Your task to perform on an android device: turn off location Image 0: 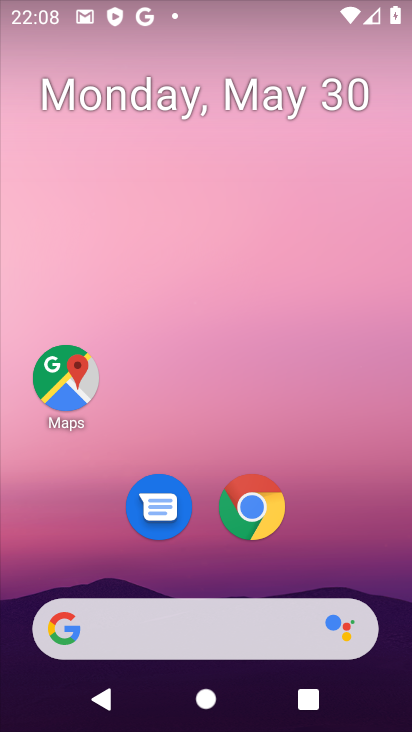
Step 0: drag from (370, 554) to (381, 114)
Your task to perform on an android device: turn off location Image 1: 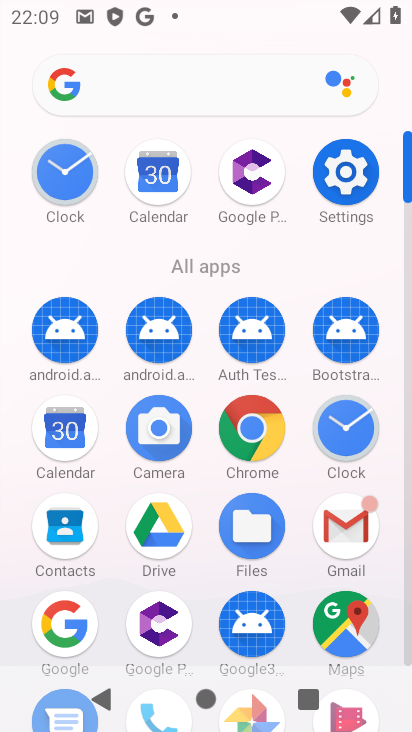
Step 1: click (356, 175)
Your task to perform on an android device: turn off location Image 2: 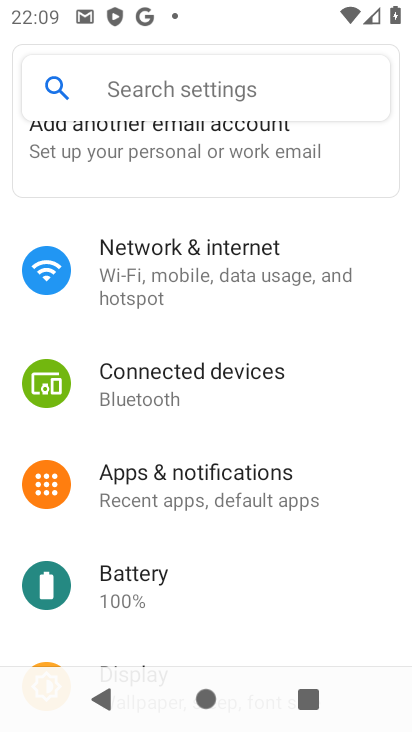
Step 2: drag from (345, 502) to (348, 369)
Your task to perform on an android device: turn off location Image 3: 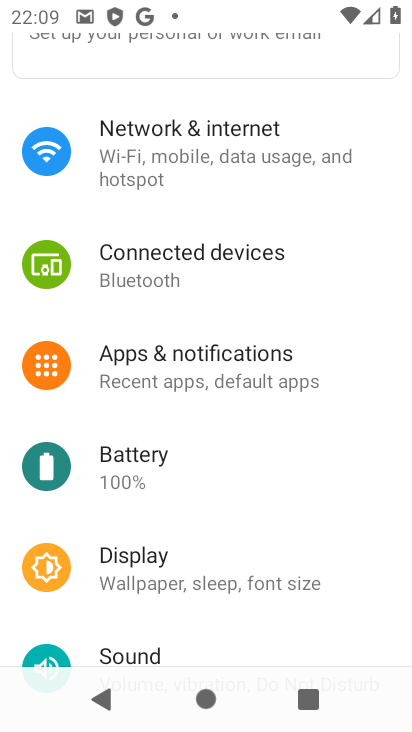
Step 3: drag from (329, 551) to (338, 364)
Your task to perform on an android device: turn off location Image 4: 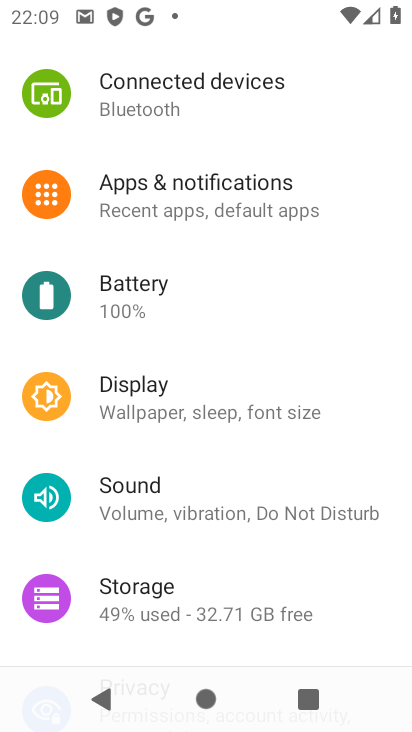
Step 4: drag from (350, 553) to (361, 364)
Your task to perform on an android device: turn off location Image 5: 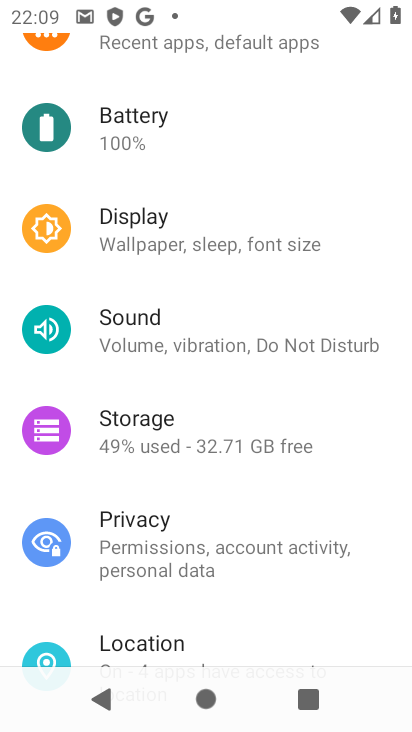
Step 5: drag from (369, 591) to (378, 415)
Your task to perform on an android device: turn off location Image 6: 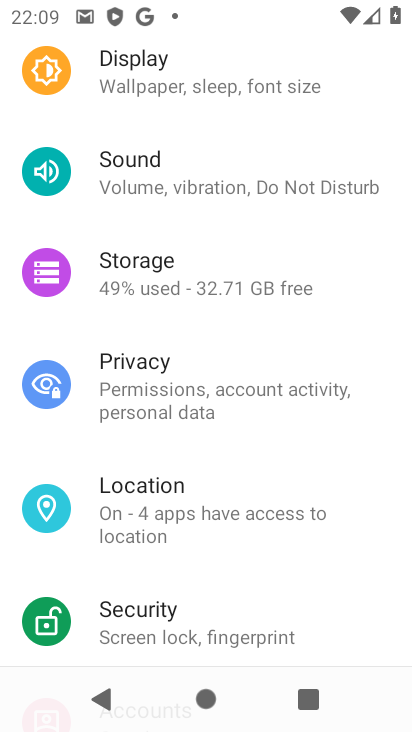
Step 6: drag from (371, 585) to (374, 445)
Your task to perform on an android device: turn off location Image 7: 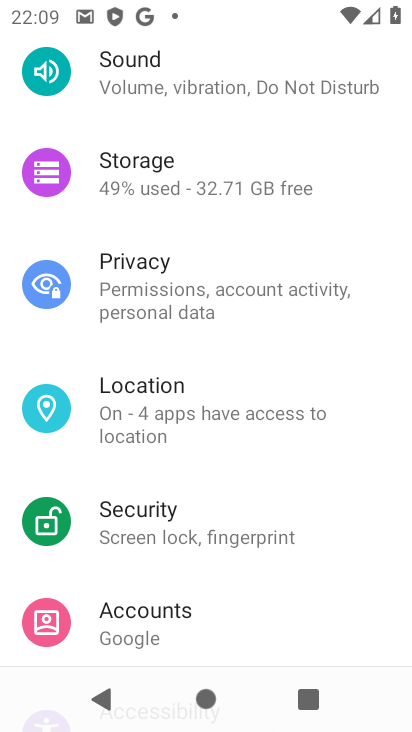
Step 7: drag from (361, 548) to (353, 424)
Your task to perform on an android device: turn off location Image 8: 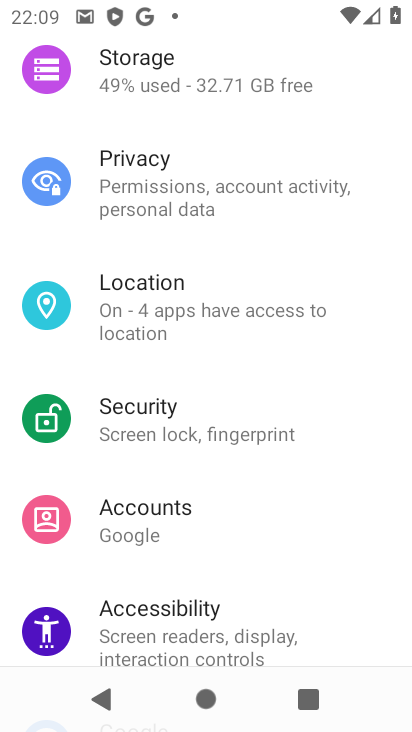
Step 8: click (308, 321)
Your task to perform on an android device: turn off location Image 9: 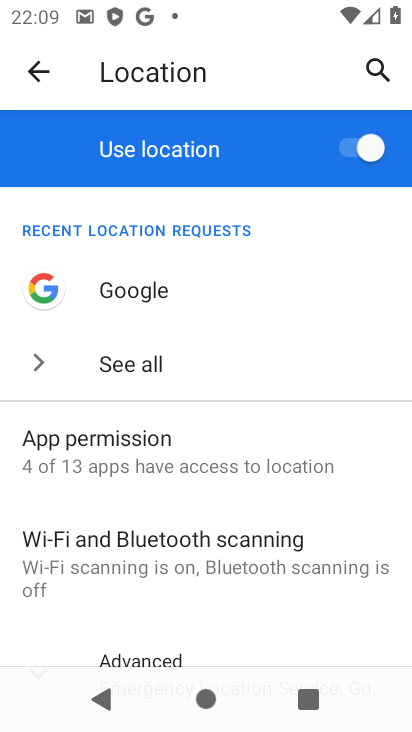
Step 9: click (366, 153)
Your task to perform on an android device: turn off location Image 10: 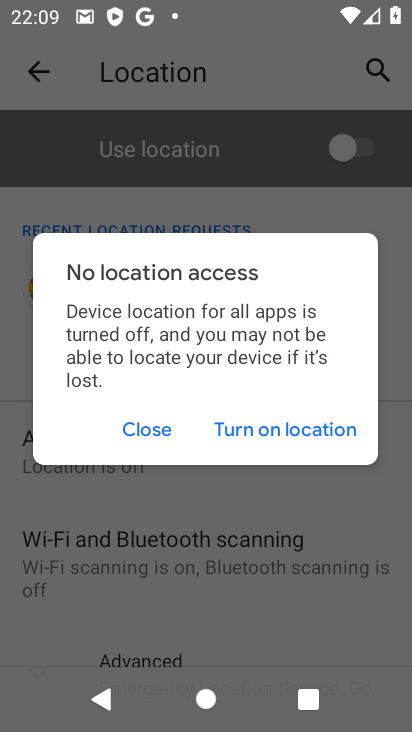
Step 10: task complete